Your task to perform on an android device: change the upload size in google photos Image 0: 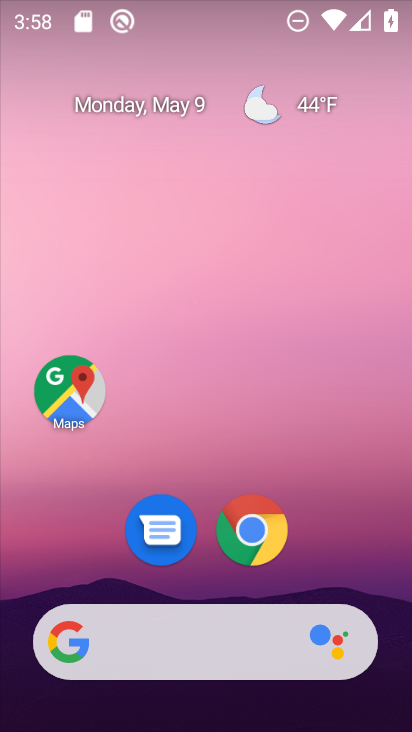
Step 0: drag from (201, 445) to (214, 4)
Your task to perform on an android device: change the upload size in google photos Image 1: 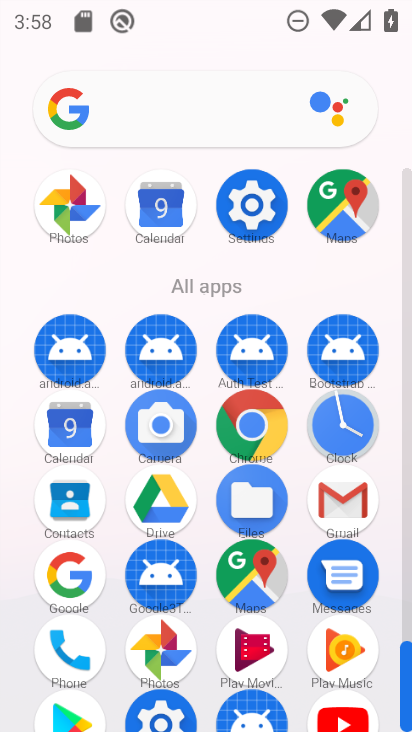
Step 1: click (158, 640)
Your task to perform on an android device: change the upload size in google photos Image 2: 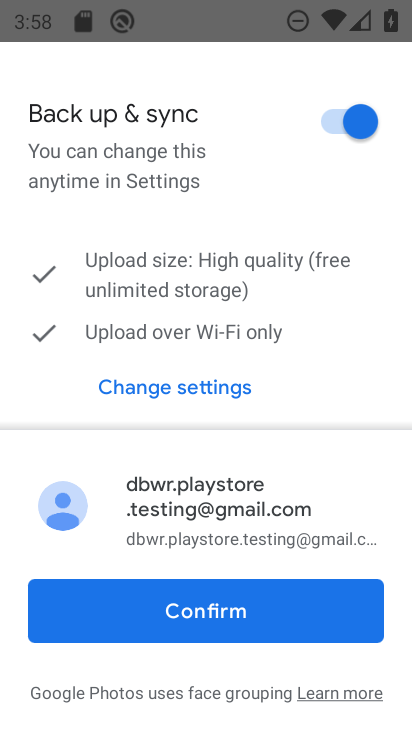
Step 2: click (196, 617)
Your task to perform on an android device: change the upload size in google photos Image 3: 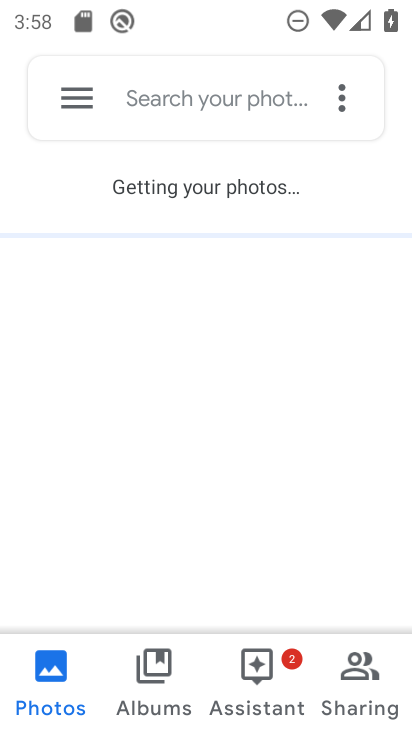
Step 3: click (75, 98)
Your task to perform on an android device: change the upload size in google photos Image 4: 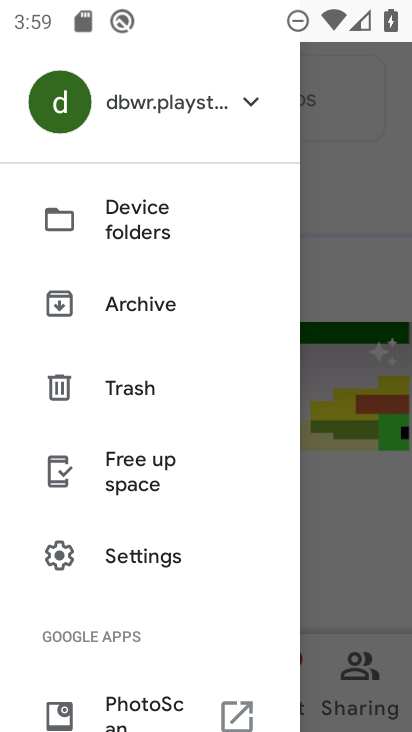
Step 4: drag from (148, 650) to (144, 369)
Your task to perform on an android device: change the upload size in google photos Image 5: 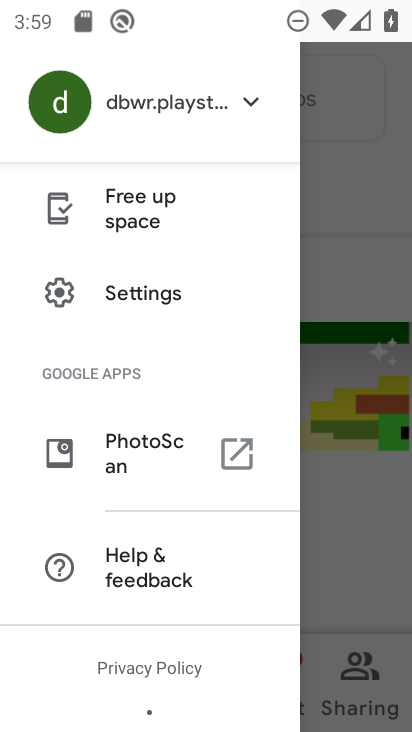
Step 5: click (154, 287)
Your task to perform on an android device: change the upload size in google photos Image 6: 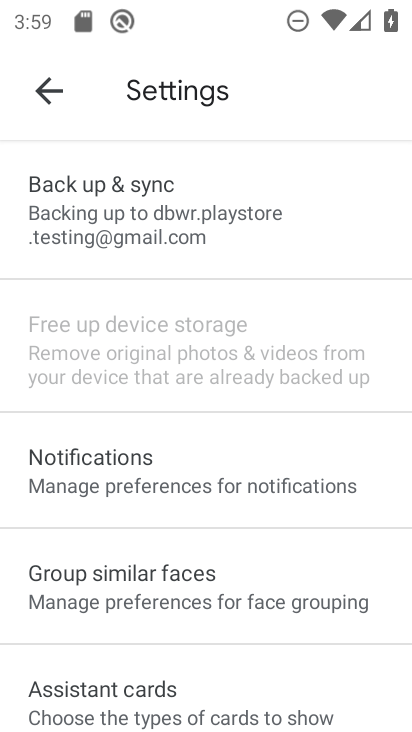
Step 6: click (116, 204)
Your task to perform on an android device: change the upload size in google photos Image 7: 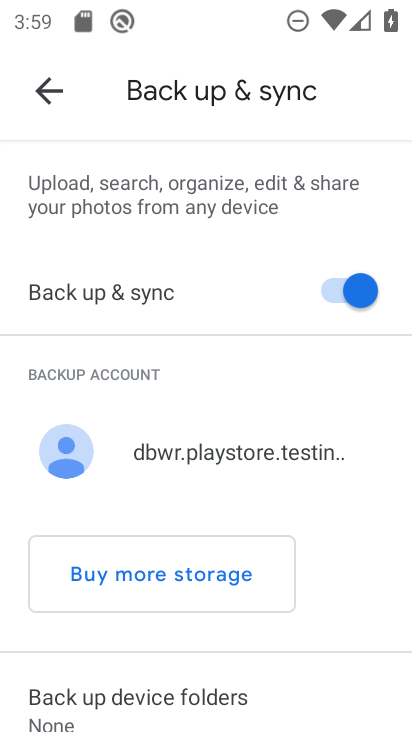
Step 7: drag from (156, 689) to (160, 313)
Your task to perform on an android device: change the upload size in google photos Image 8: 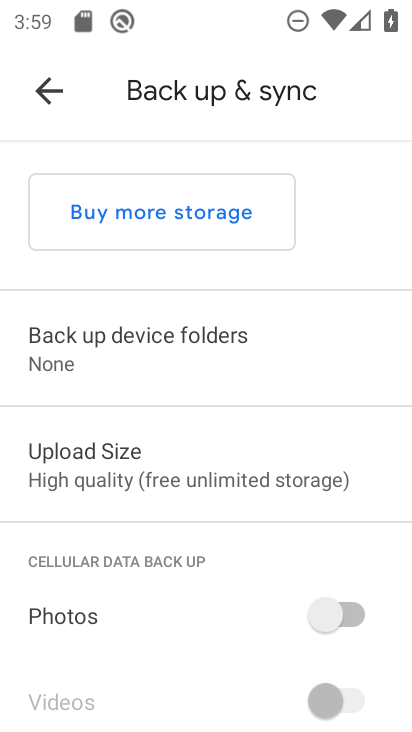
Step 8: click (130, 448)
Your task to perform on an android device: change the upload size in google photos Image 9: 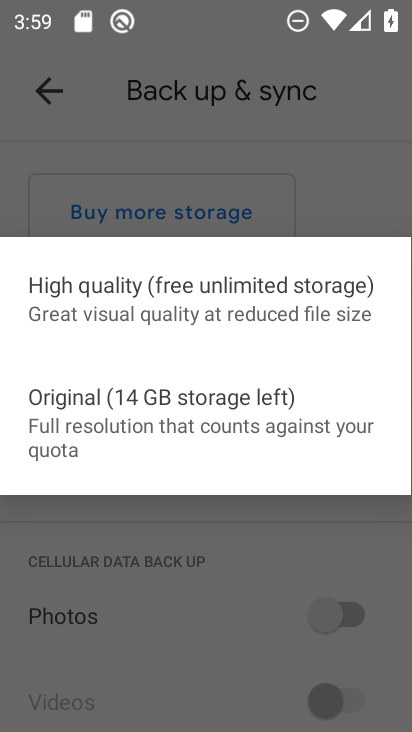
Step 9: click (177, 313)
Your task to perform on an android device: change the upload size in google photos Image 10: 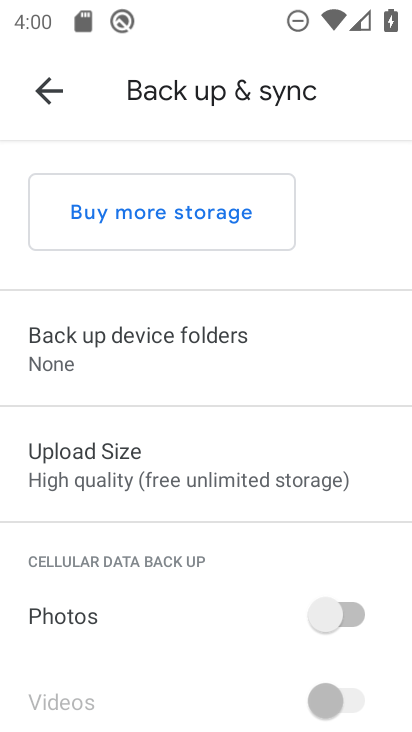
Step 10: task complete